Your task to perform on an android device: toggle sleep mode Image 0: 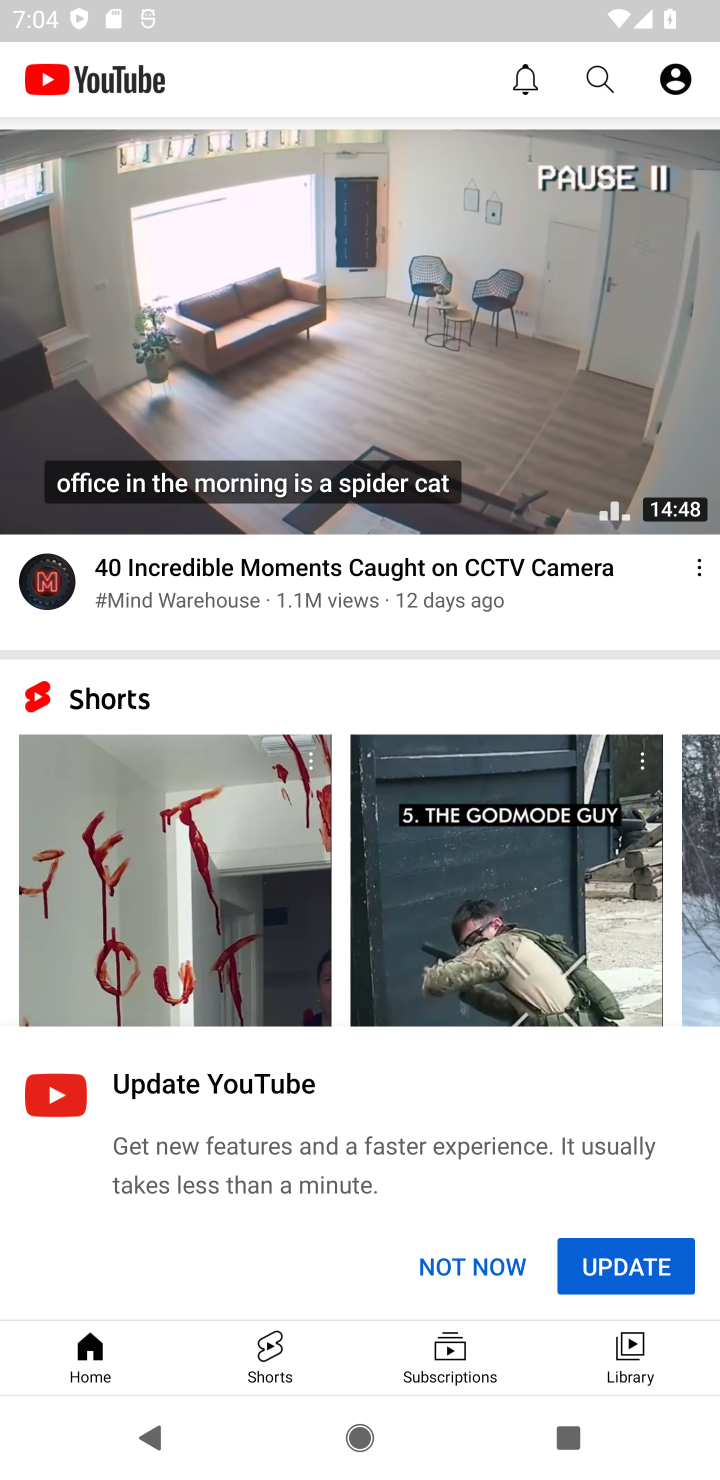
Step 0: press home button
Your task to perform on an android device: toggle sleep mode Image 1: 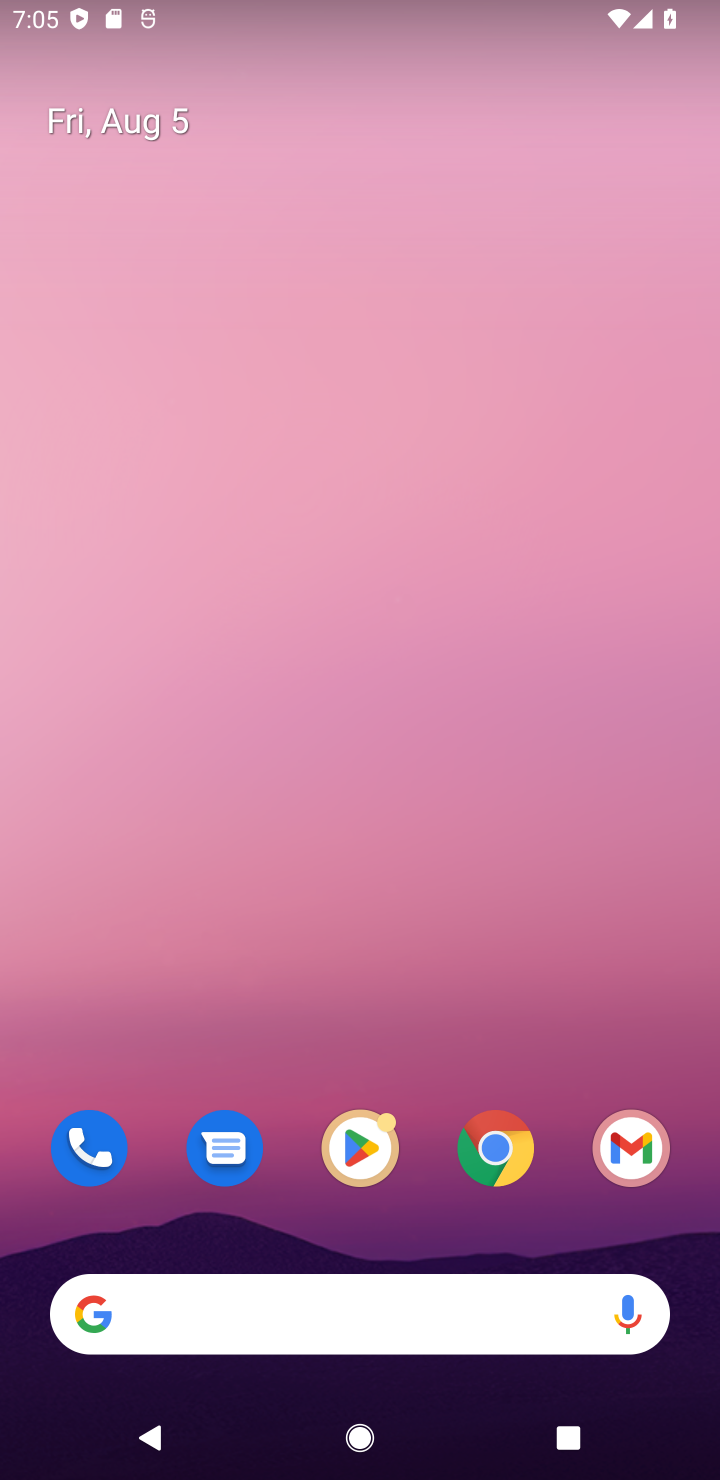
Step 1: drag from (390, 886) to (251, 84)
Your task to perform on an android device: toggle sleep mode Image 2: 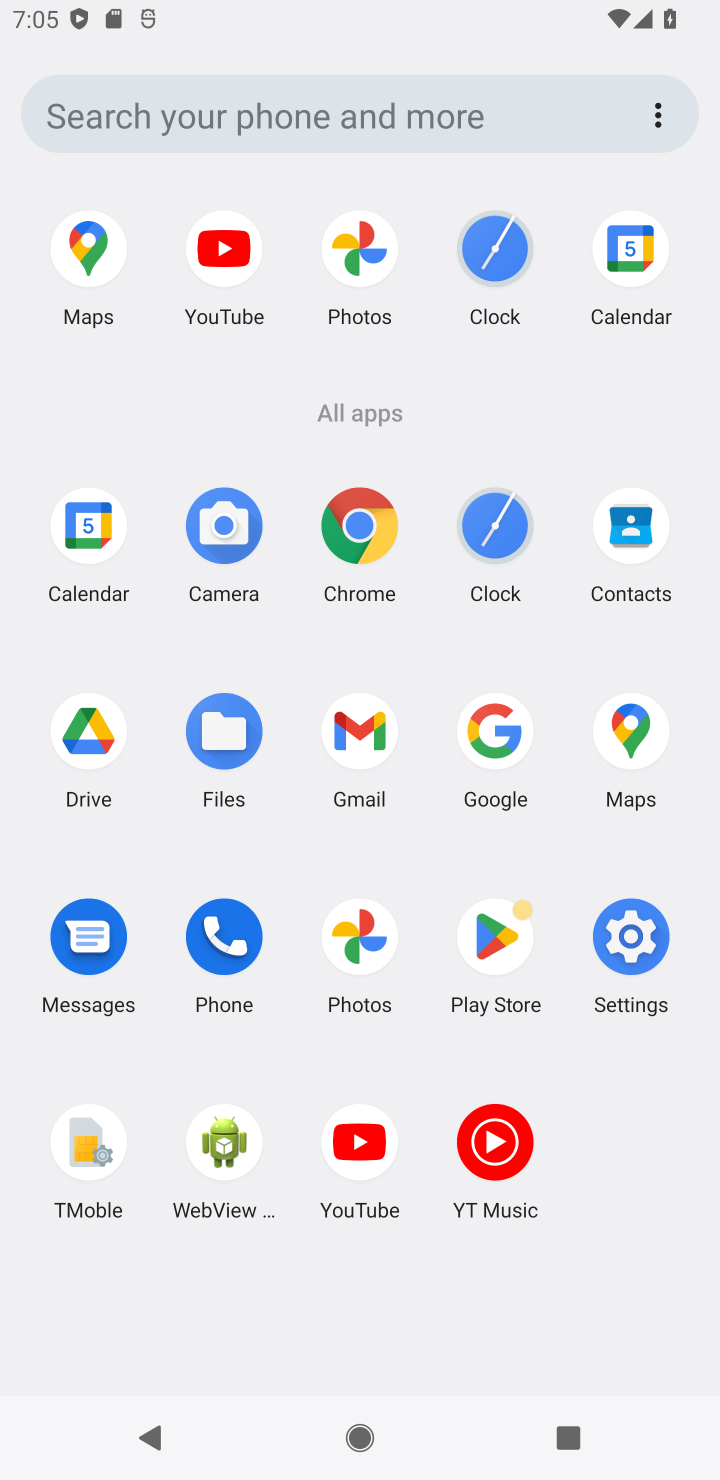
Step 2: click (626, 988)
Your task to perform on an android device: toggle sleep mode Image 3: 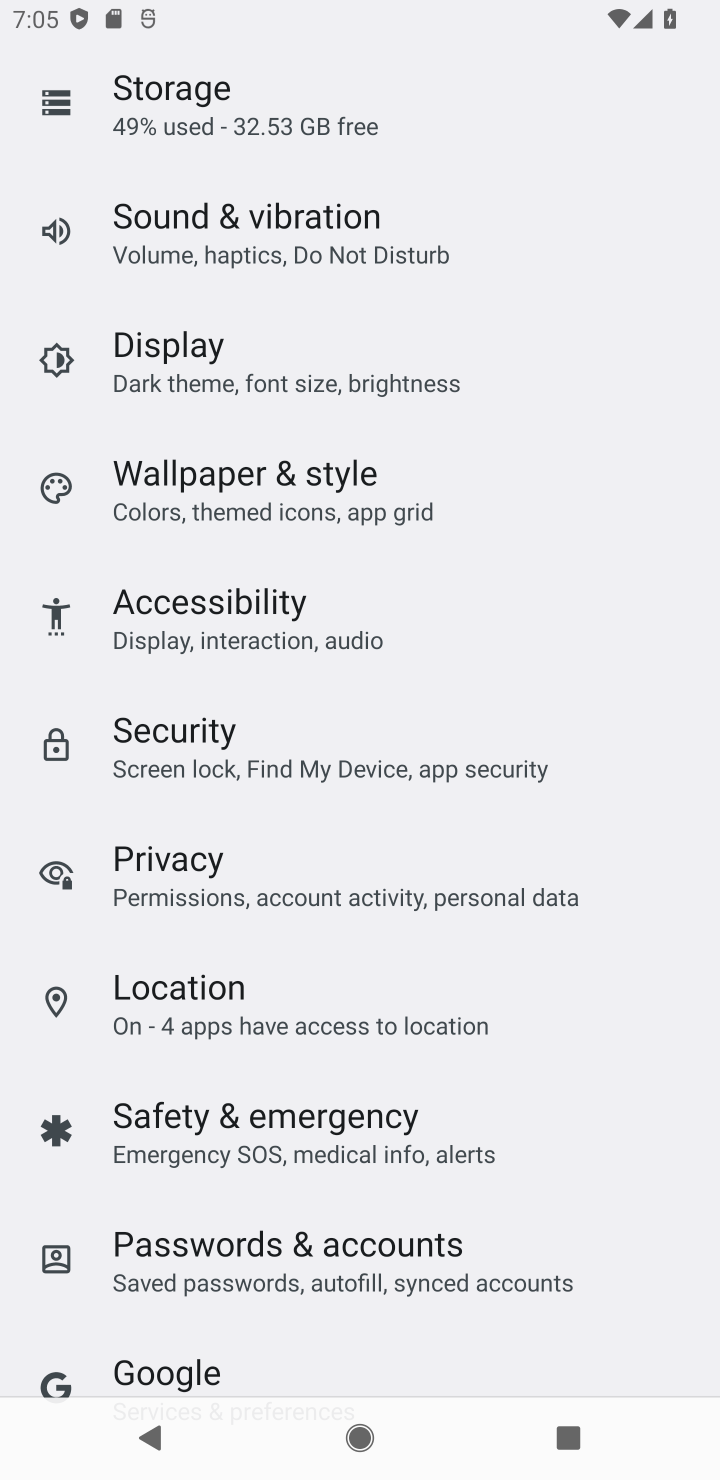
Step 3: task complete